Your task to perform on an android device: Go to battery settings Image 0: 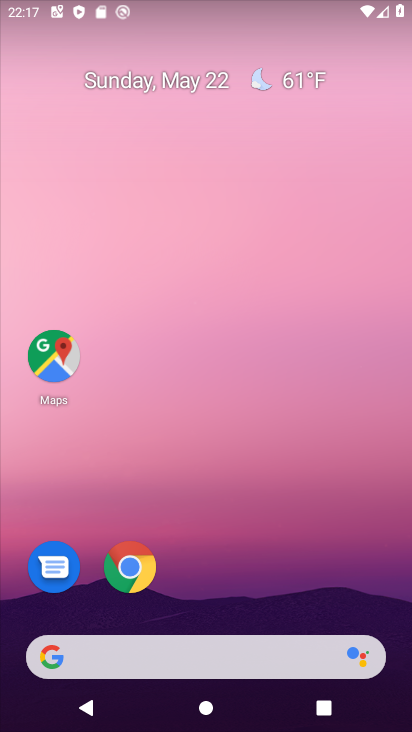
Step 0: drag from (201, 612) to (367, 39)
Your task to perform on an android device: Go to battery settings Image 1: 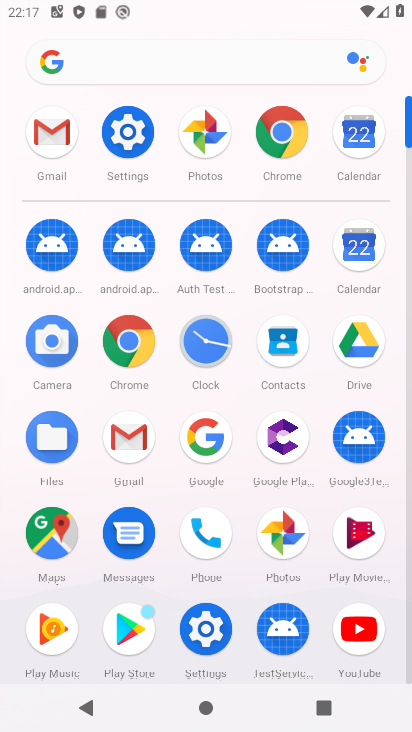
Step 1: click (115, 123)
Your task to perform on an android device: Go to battery settings Image 2: 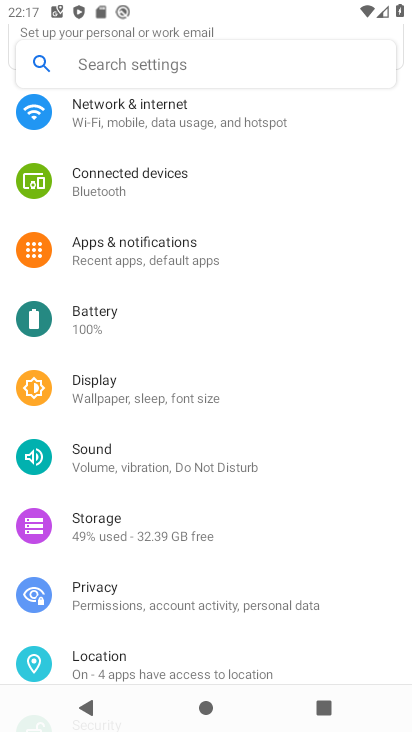
Step 2: drag from (179, 495) to (131, 168)
Your task to perform on an android device: Go to battery settings Image 3: 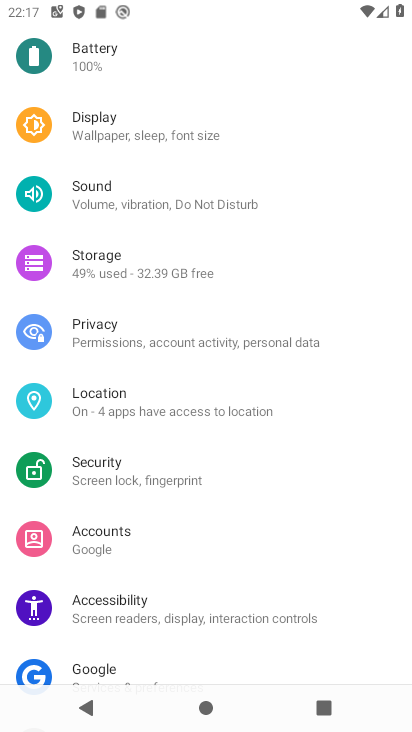
Step 3: click (103, 71)
Your task to perform on an android device: Go to battery settings Image 4: 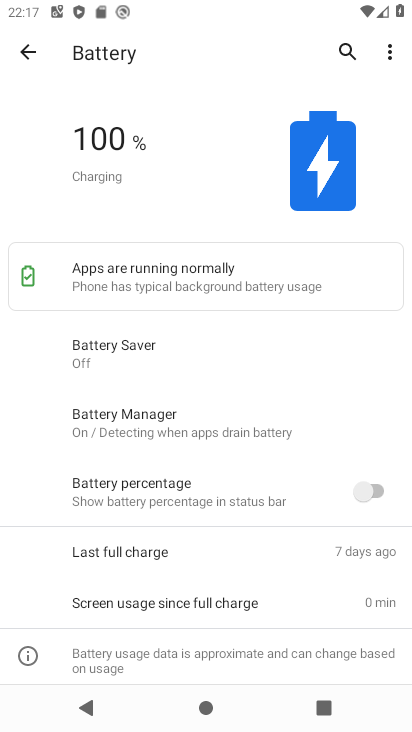
Step 4: task complete